Your task to perform on an android device: Show me recent news Image 0: 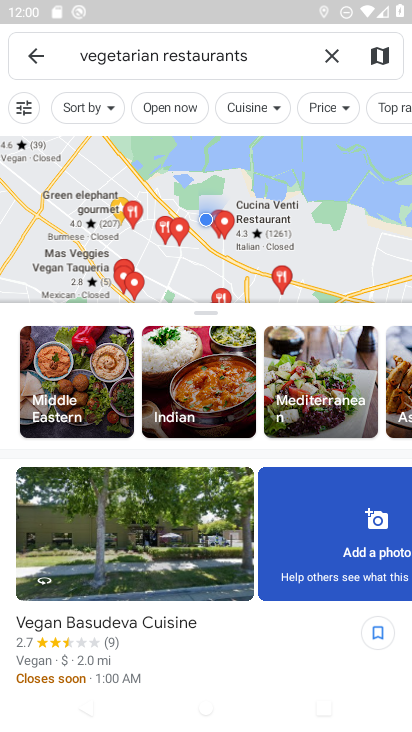
Step 0: press home button
Your task to perform on an android device: Show me recent news Image 1: 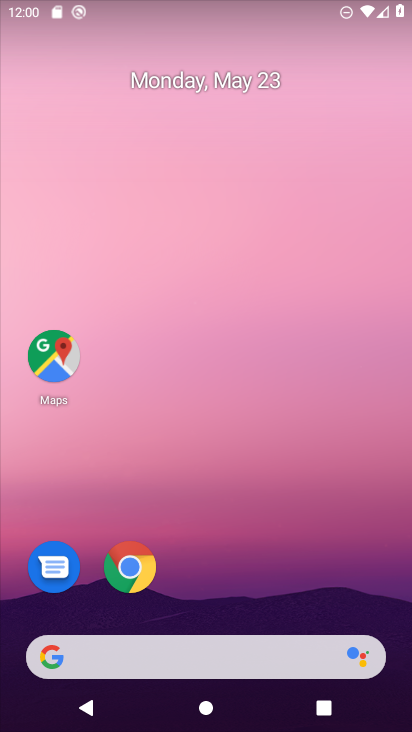
Step 1: click (137, 658)
Your task to perform on an android device: Show me recent news Image 2: 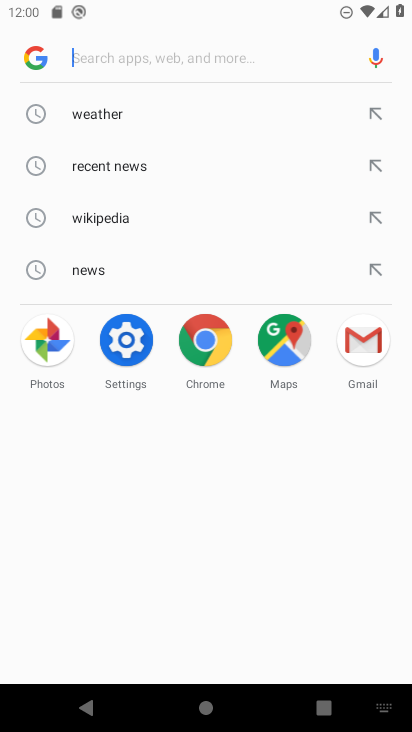
Step 2: click (134, 165)
Your task to perform on an android device: Show me recent news Image 3: 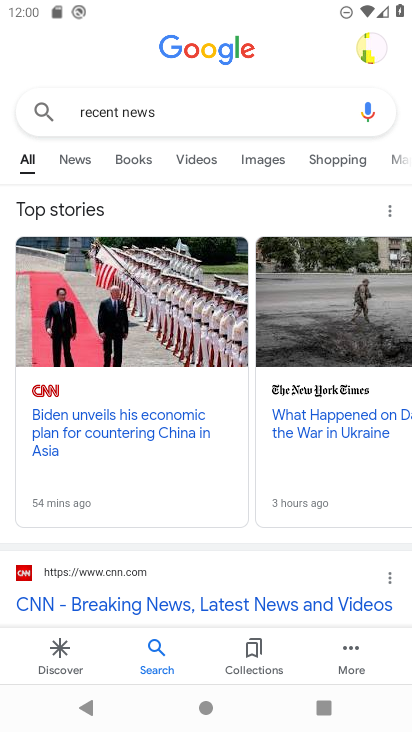
Step 3: task complete